Your task to perform on an android device: show emergency info Image 0: 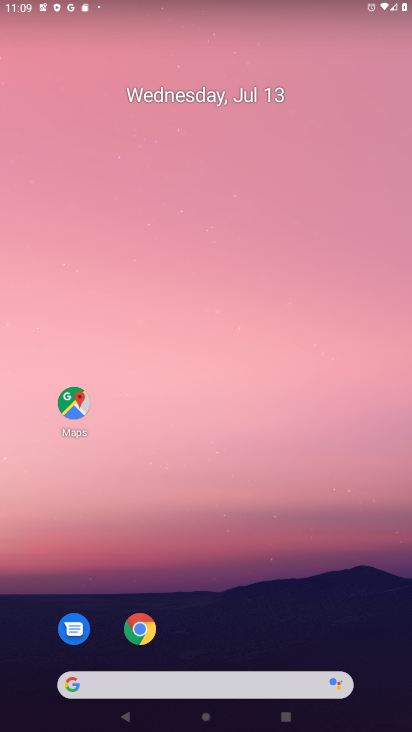
Step 0: drag from (307, 618) to (274, 61)
Your task to perform on an android device: show emergency info Image 1: 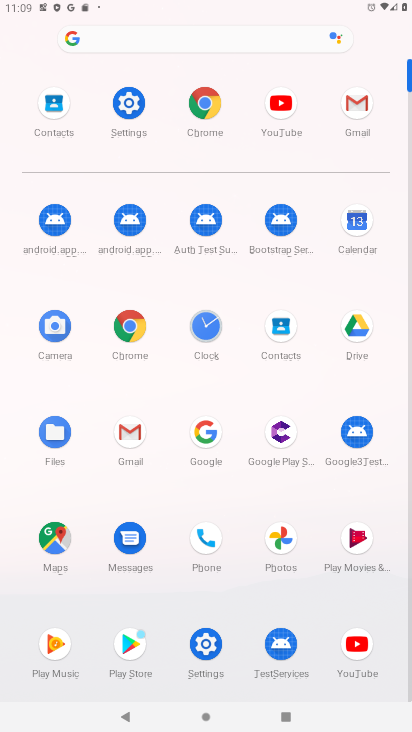
Step 1: click (145, 111)
Your task to perform on an android device: show emergency info Image 2: 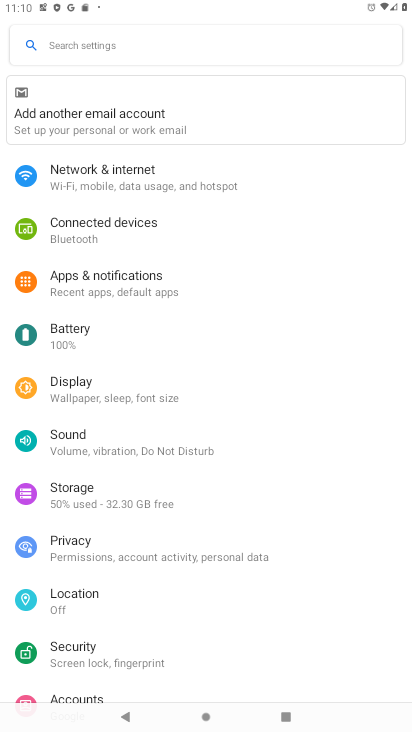
Step 2: drag from (174, 608) to (162, 154)
Your task to perform on an android device: show emergency info Image 3: 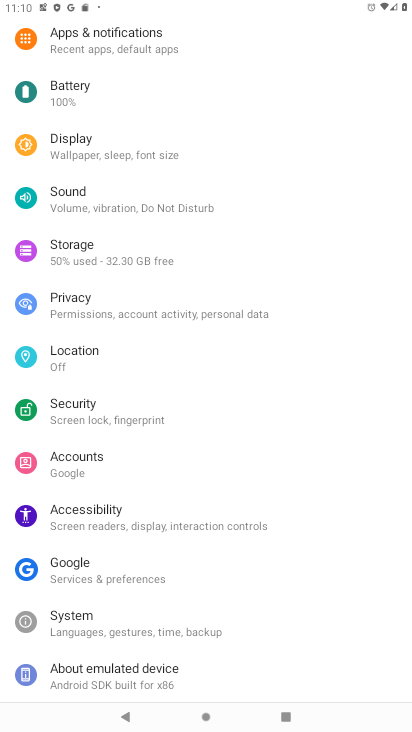
Step 3: click (104, 668)
Your task to perform on an android device: show emergency info Image 4: 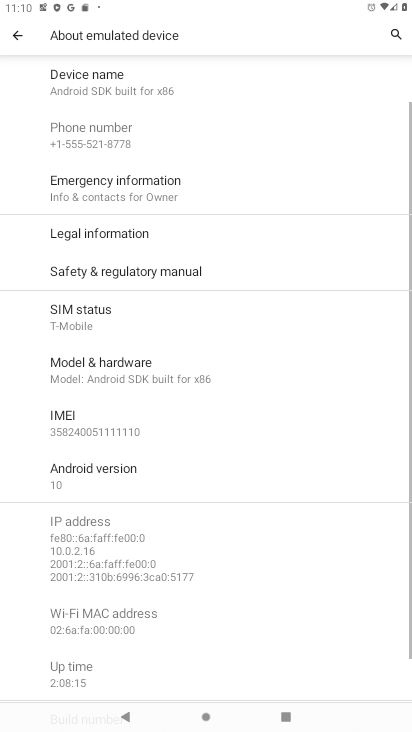
Step 4: click (138, 190)
Your task to perform on an android device: show emergency info Image 5: 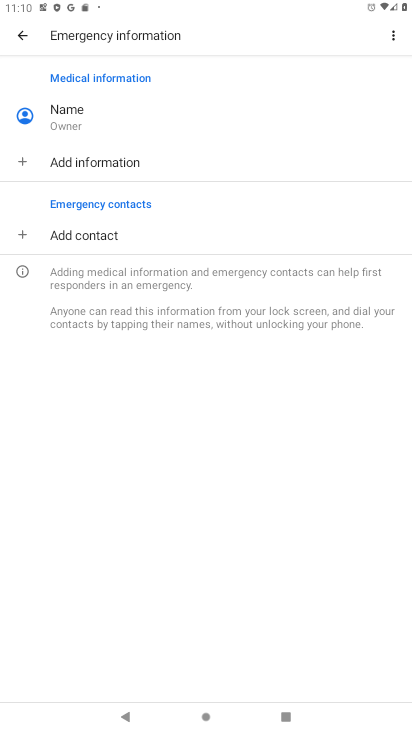
Step 5: task complete